Your task to perform on an android device: Open the calendar and show me this week's events Image 0: 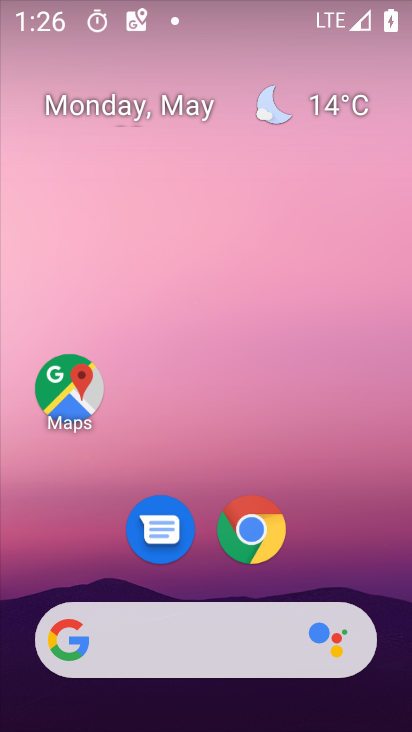
Step 0: drag from (370, 585) to (355, 184)
Your task to perform on an android device: Open the calendar and show me this week's events Image 1: 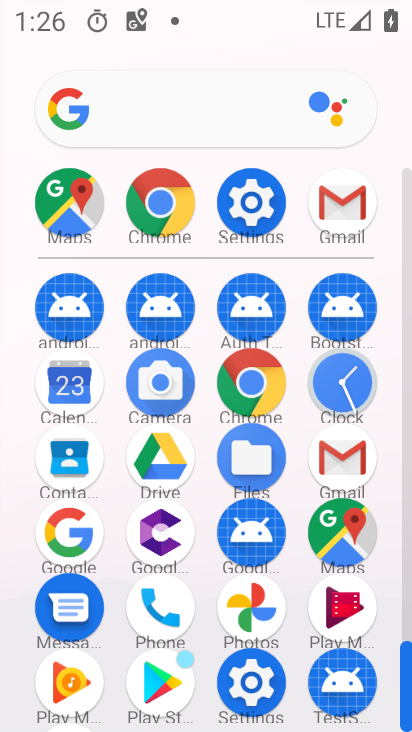
Step 1: click (74, 397)
Your task to perform on an android device: Open the calendar and show me this week's events Image 2: 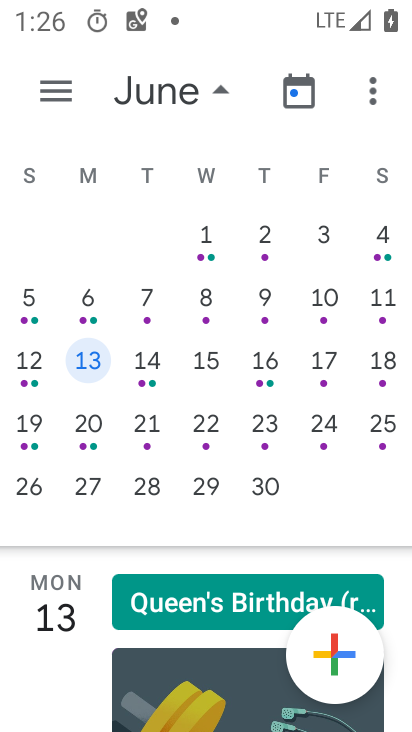
Step 2: drag from (94, 210) to (402, 279)
Your task to perform on an android device: Open the calendar and show me this week's events Image 3: 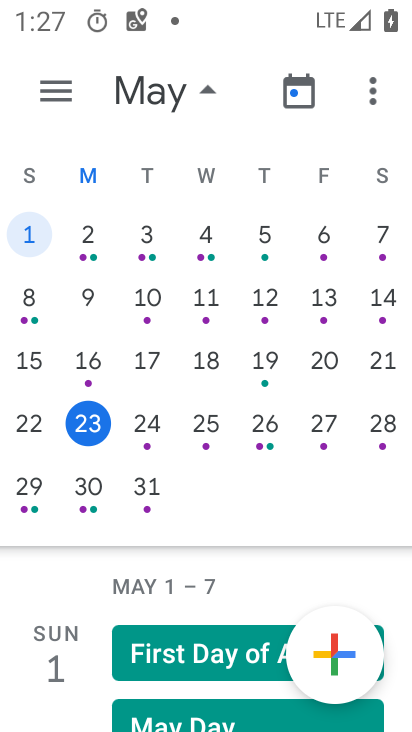
Step 3: click (156, 420)
Your task to perform on an android device: Open the calendar and show me this week's events Image 4: 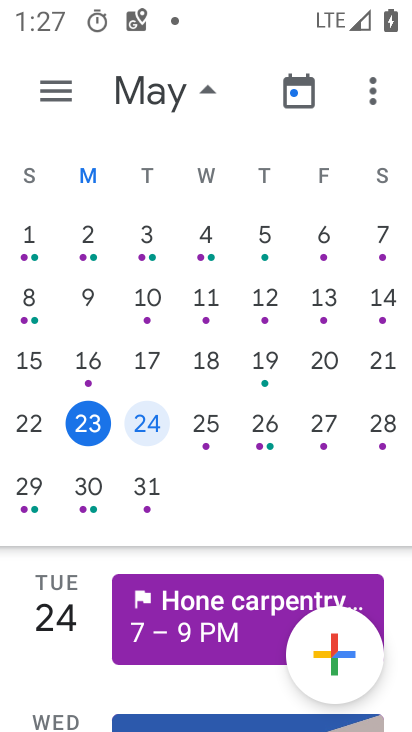
Step 4: drag from (216, 542) to (233, 232)
Your task to perform on an android device: Open the calendar and show me this week's events Image 5: 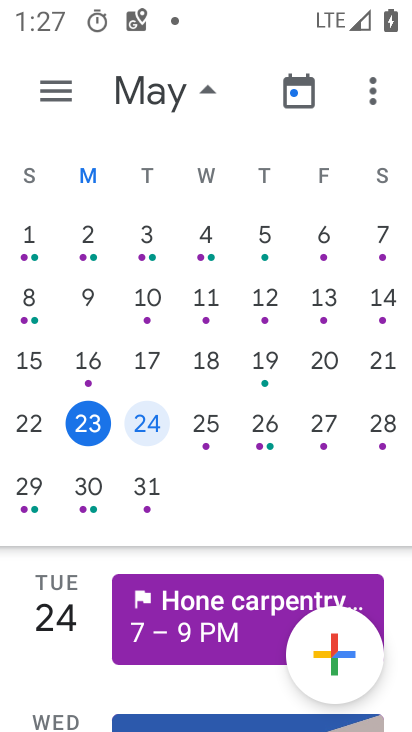
Step 5: click (201, 618)
Your task to perform on an android device: Open the calendar and show me this week's events Image 6: 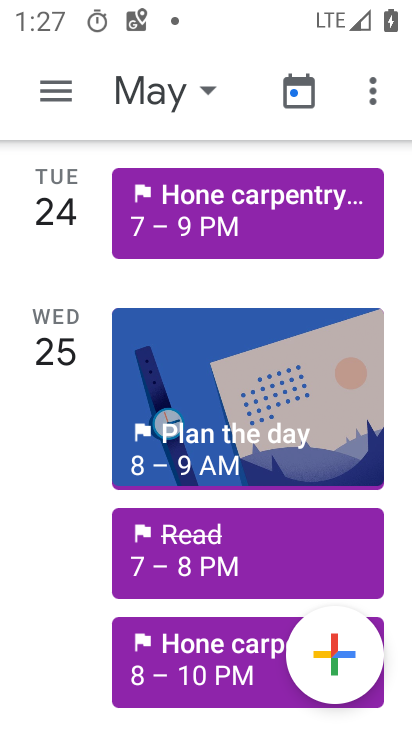
Step 6: task complete